Your task to perform on an android device: See recent photos Image 0: 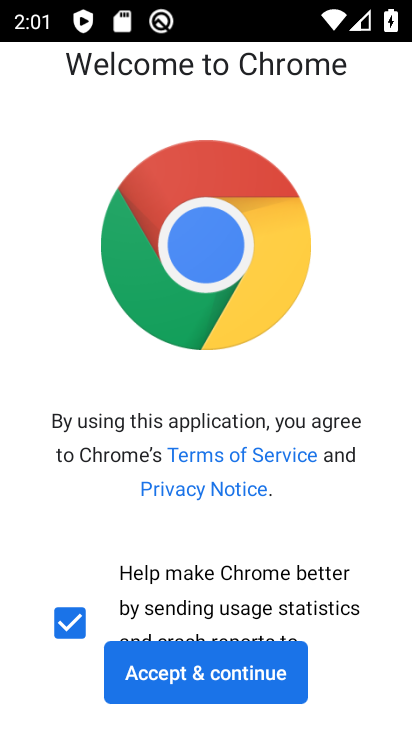
Step 0: press home button
Your task to perform on an android device: See recent photos Image 1: 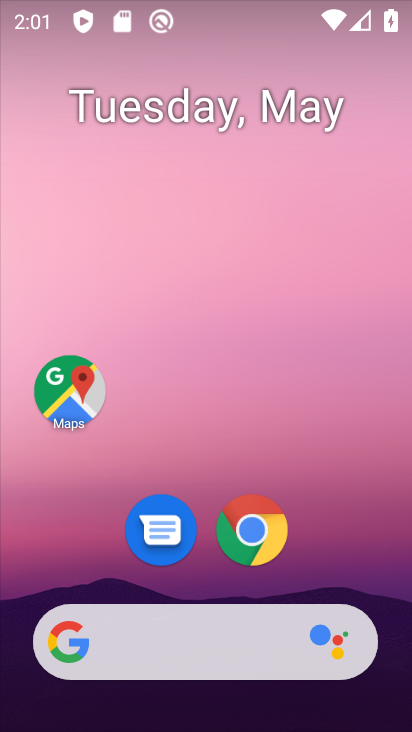
Step 1: press home button
Your task to perform on an android device: See recent photos Image 2: 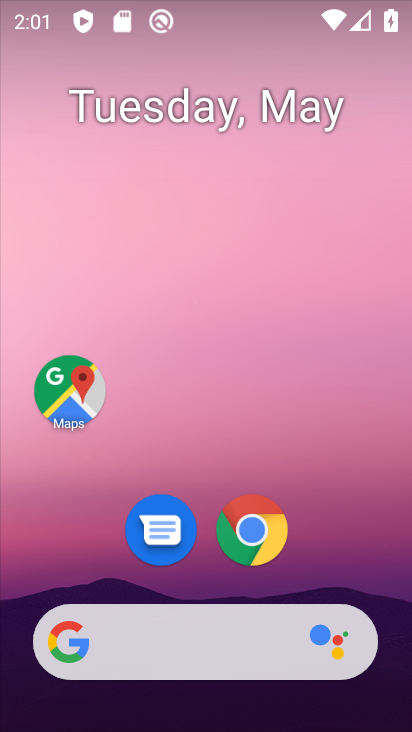
Step 2: drag from (92, 495) to (292, 177)
Your task to perform on an android device: See recent photos Image 3: 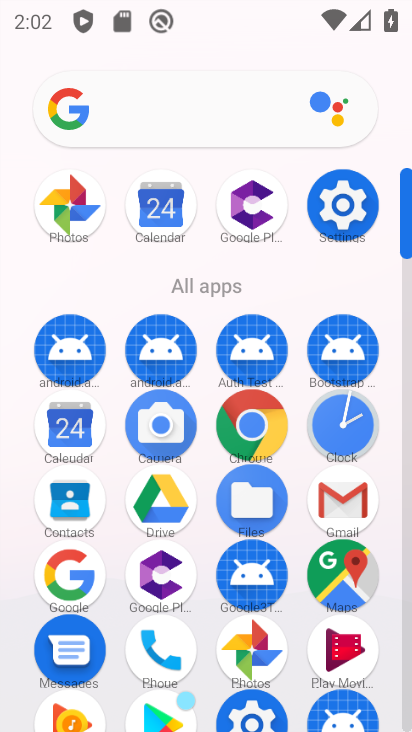
Step 3: click (245, 659)
Your task to perform on an android device: See recent photos Image 4: 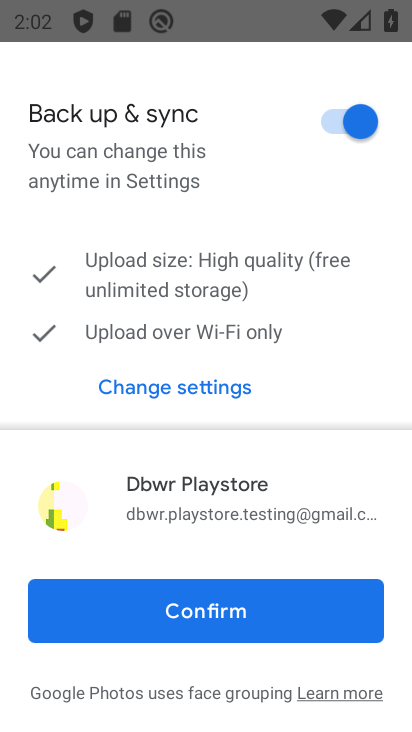
Step 4: click (177, 626)
Your task to perform on an android device: See recent photos Image 5: 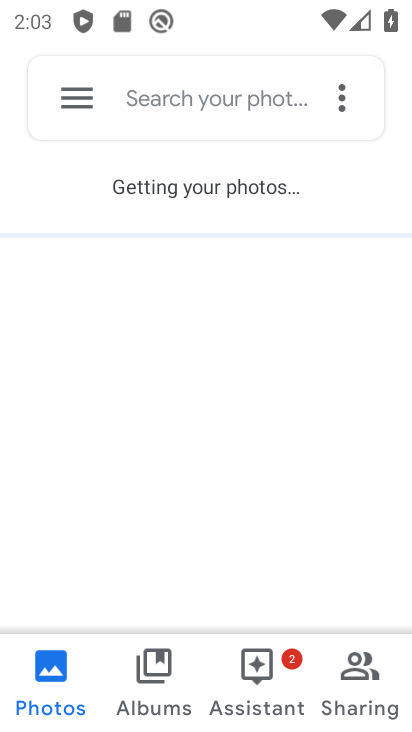
Step 5: task complete